Your task to perform on an android device: search for starred emails in the gmail app Image 0: 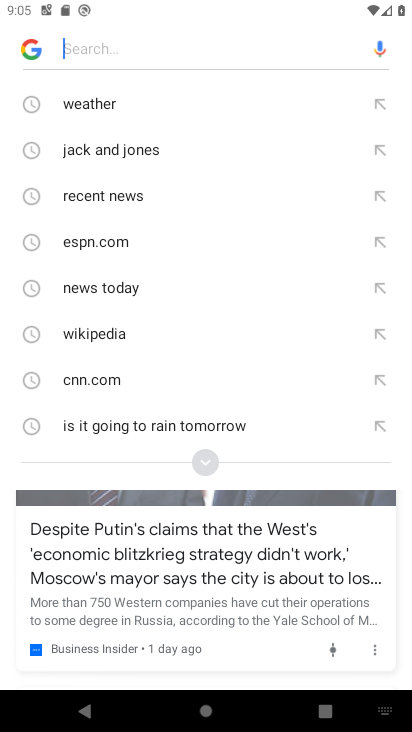
Step 0: press home button
Your task to perform on an android device: search for starred emails in the gmail app Image 1: 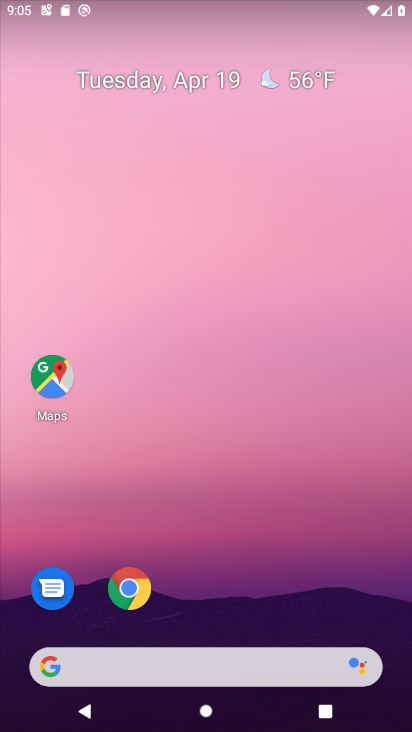
Step 1: drag from (212, 615) to (181, 30)
Your task to perform on an android device: search for starred emails in the gmail app Image 2: 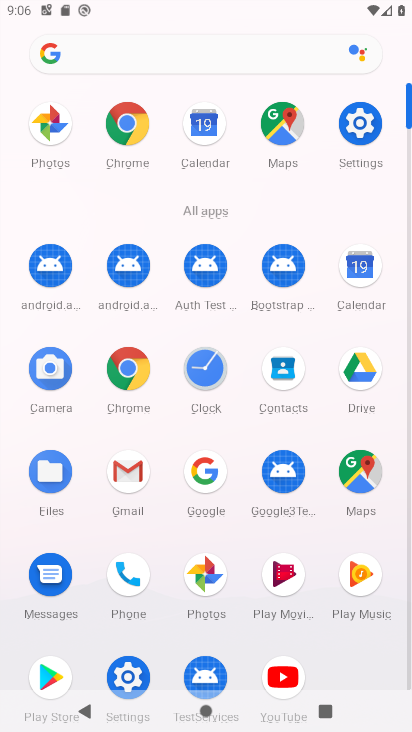
Step 2: click (126, 466)
Your task to perform on an android device: search for starred emails in the gmail app Image 3: 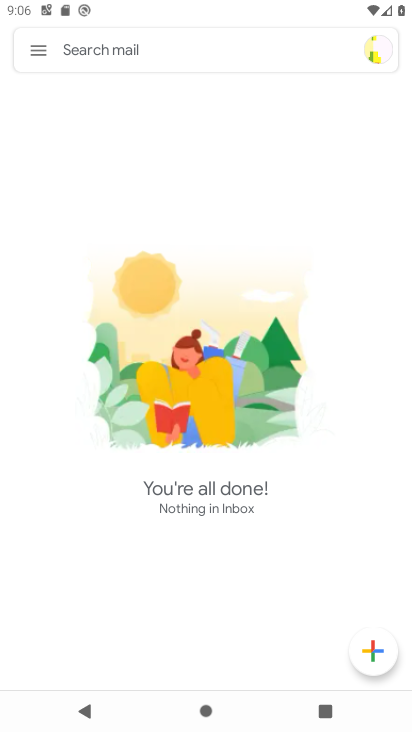
Step 3: click (39, 49)
Your task to perform on an android device: search for starred emails in the gmail app Image 4: 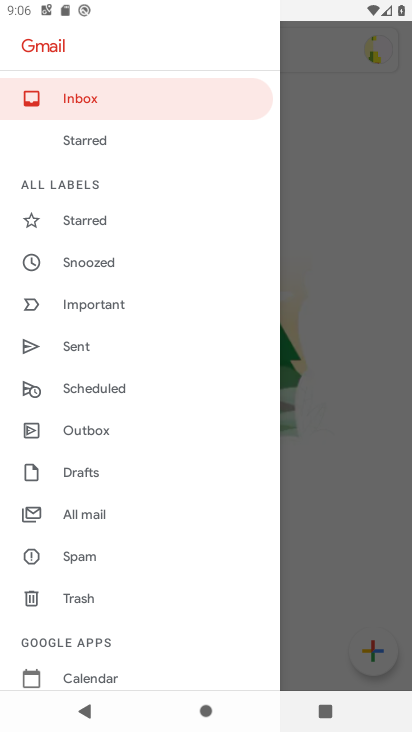
Step 4: click (90, 214)
Your task to perform on an android device: search for starred emails in the gmail app Image 5: 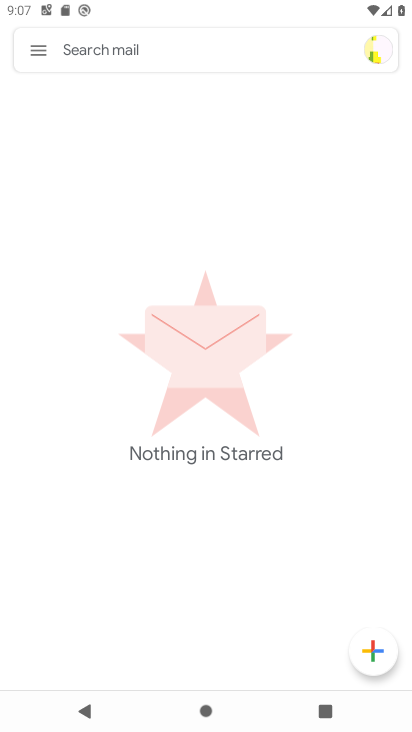
Step 5: task complete